Your task to perform on an android device: change the clock display to show seconds Image 0: 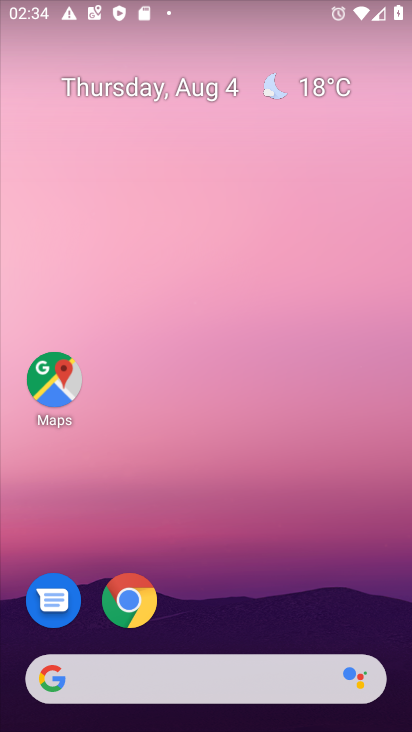
Step 0: drag from (180, 675) to (306, 145)
Your task to perform on an android device: change the clock display to show seconds Image 1: 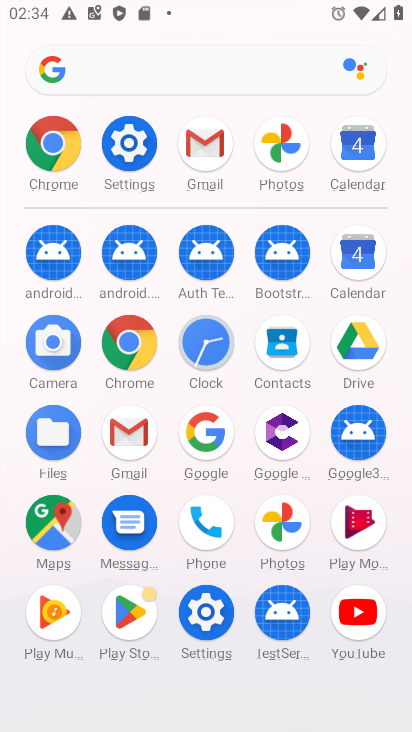
Step 1: click (207, 349)
Your task to perform on an android device: change the clock display to show seconds Image 2: 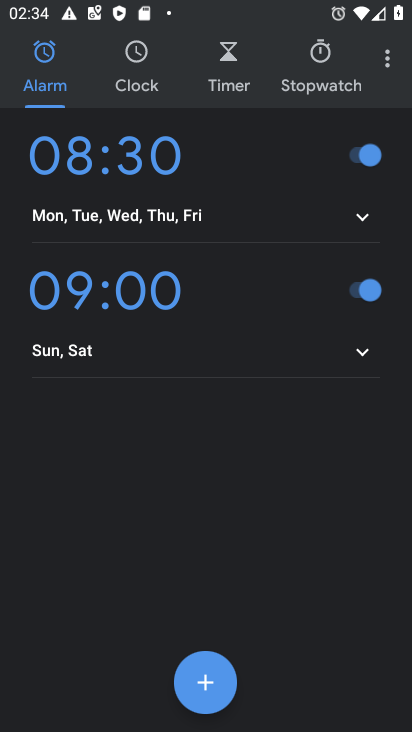
Step 2: click (386, 60)
Your task to perform on an android device: change the clock display to show seconds Image 3: 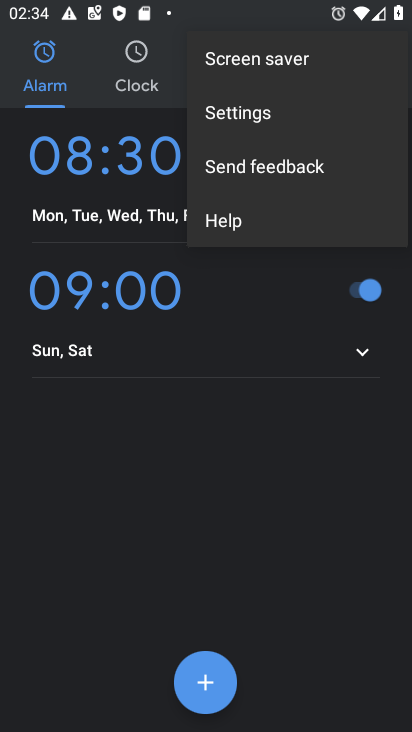
Step 3: click (245, 119)
Your task to perform on an android device: change the clock display to show seconds Image 4: 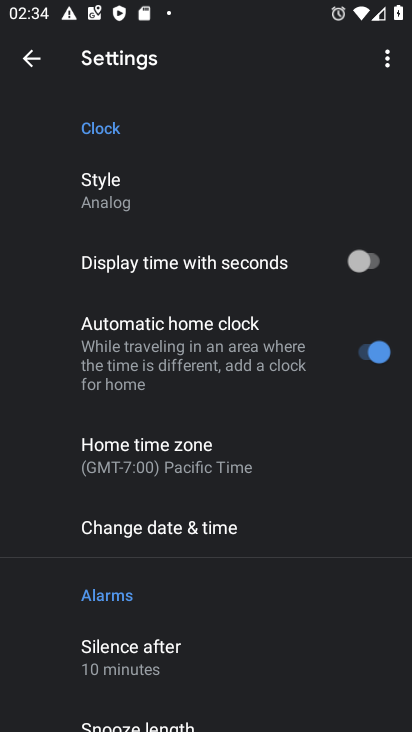
Step 4: click (372, 262)
Your task to perform on an android device: change the clock display to show seconds Image 5: 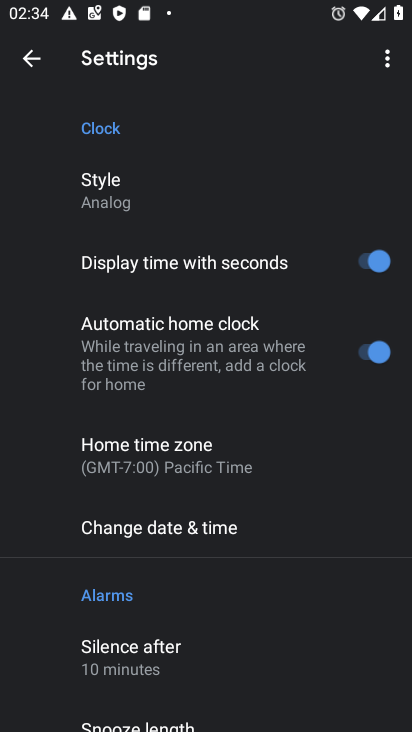
Step 5: task complete